Your task to perform on an android device: Check the weather Image 0: 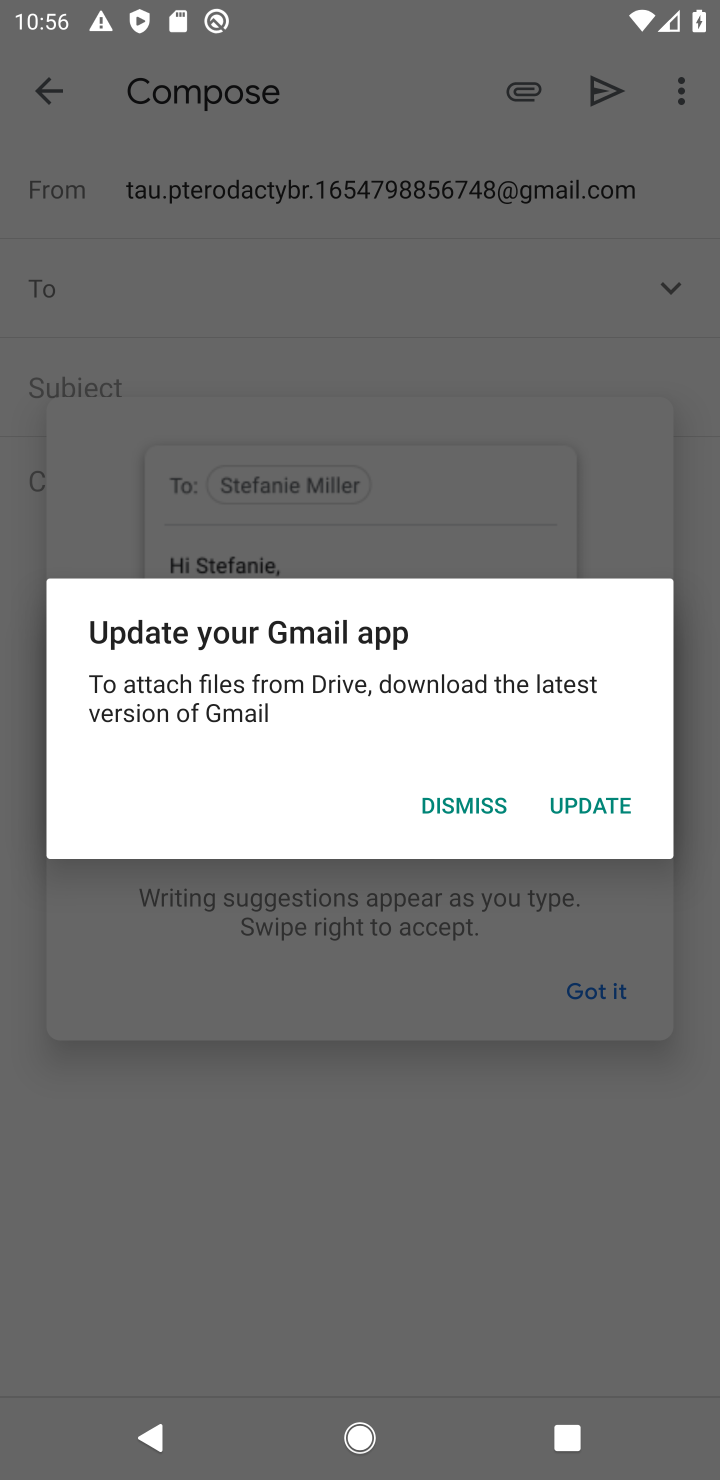
Step 0: press home button
Your task to perform on an android device: Check the weather Image 1: 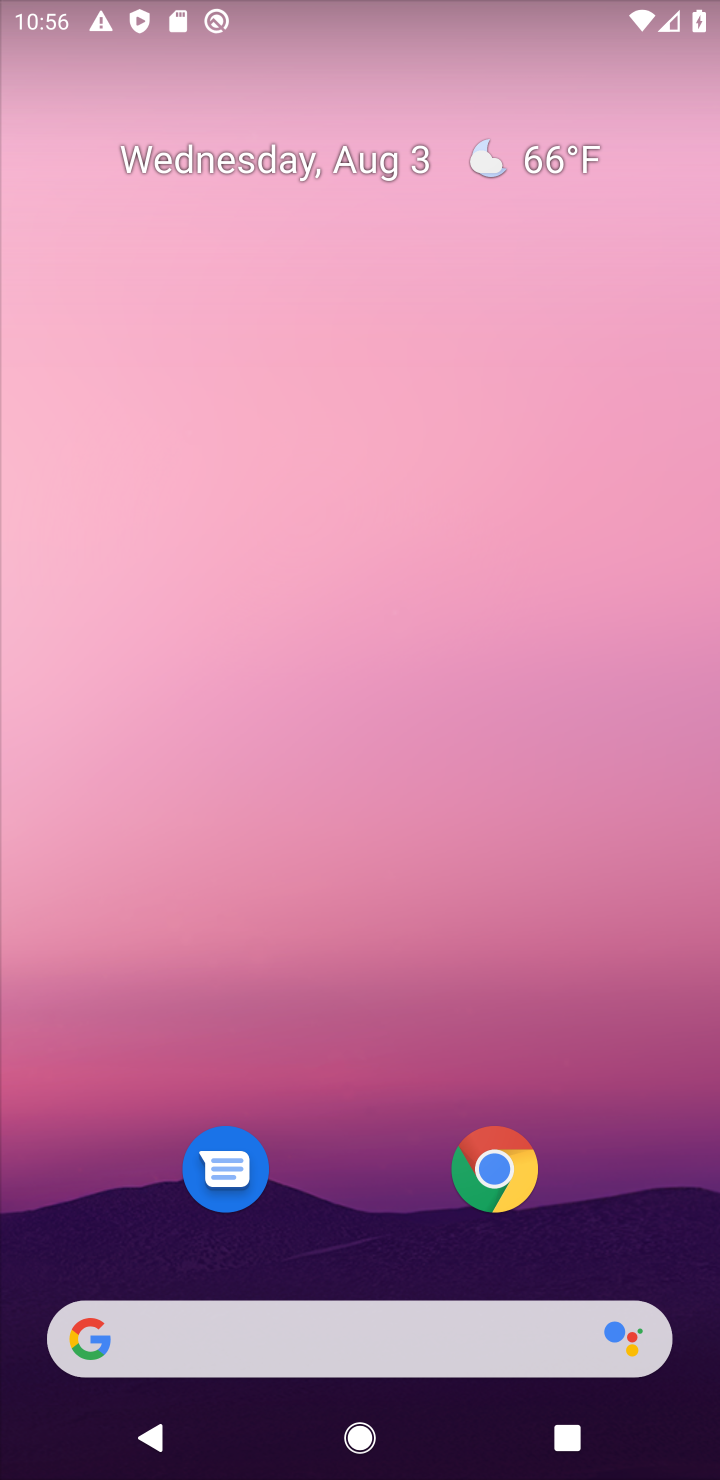
Step 1: drag from (382, 1192) to (345, 10)
Your task to perform on an android device: Check the weather Image 2: 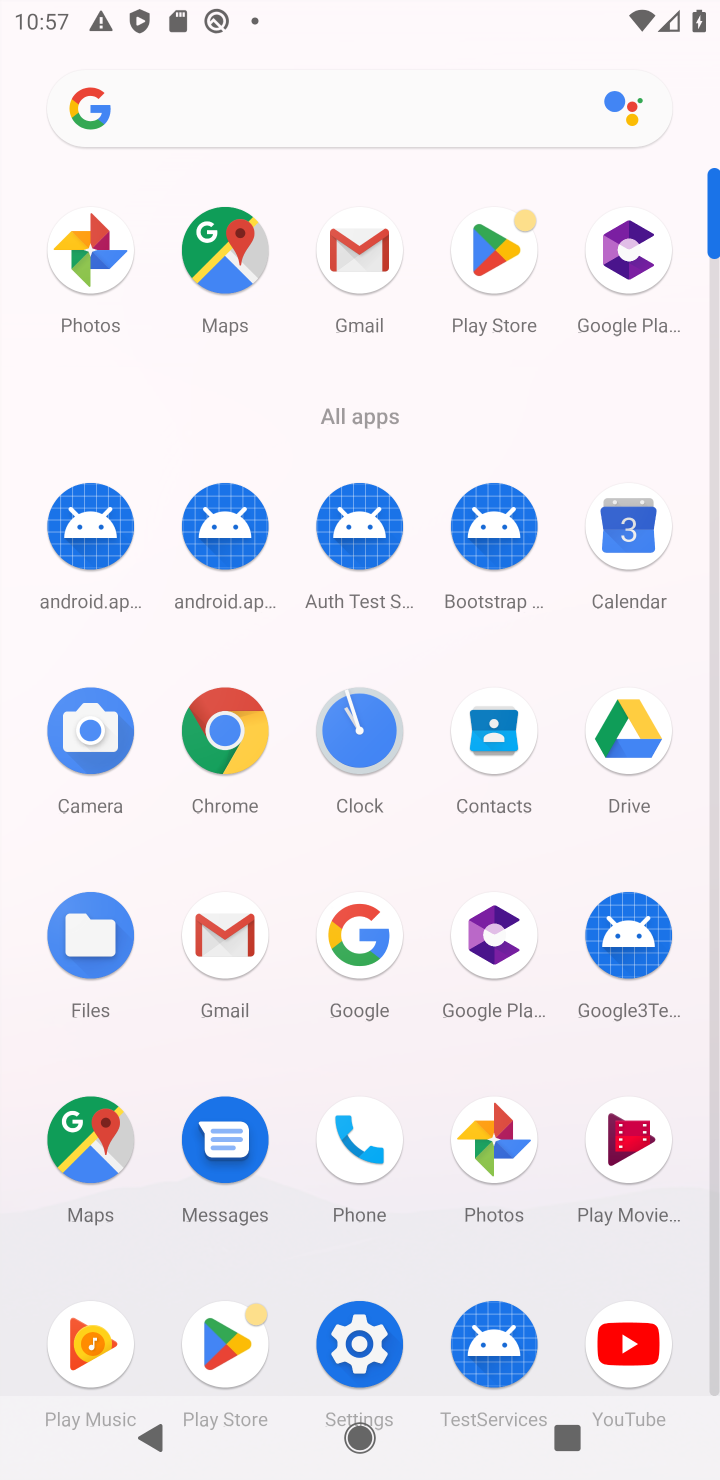
Step 2: click (186, 124)
Your task to perform on an android device: Check the weather Image 3: 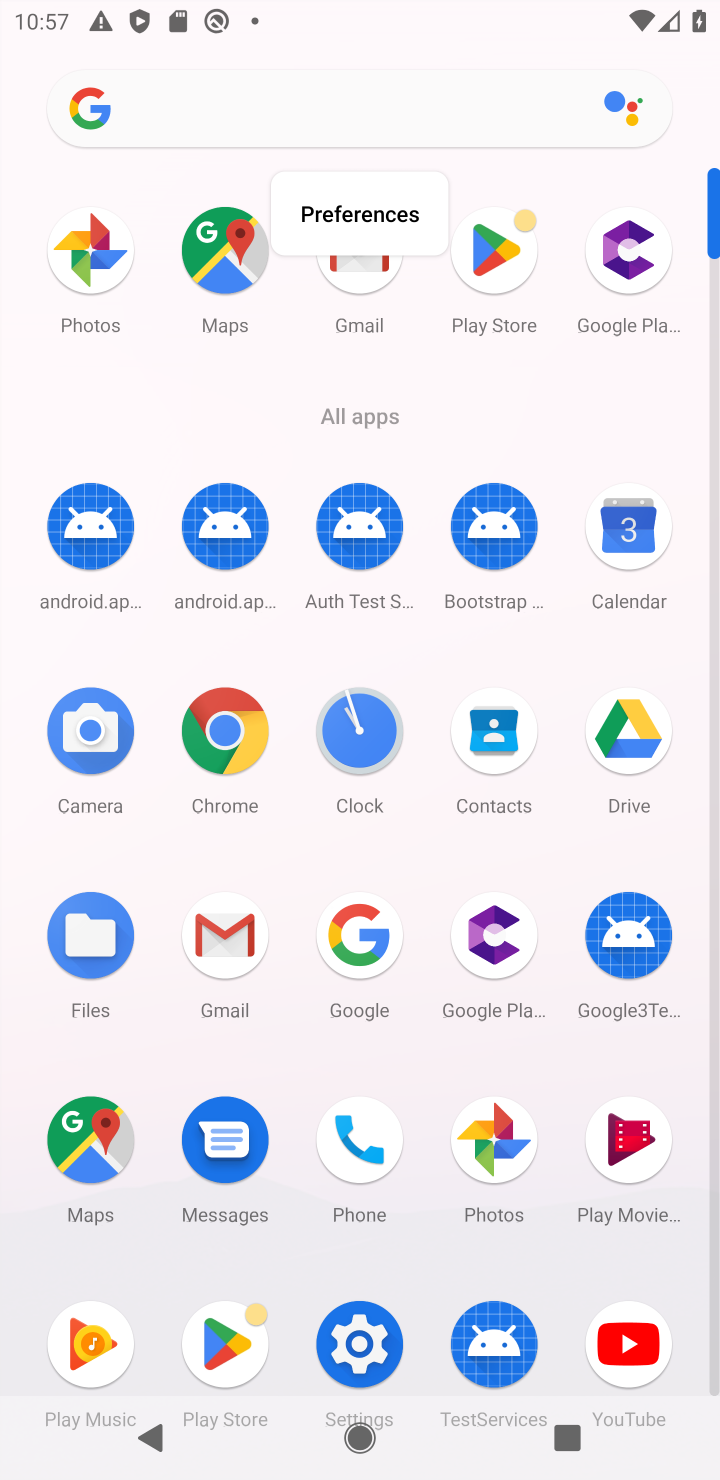
Step 3: click (207, 105)
Your task to perform on an android device: Check the weather Image 4: 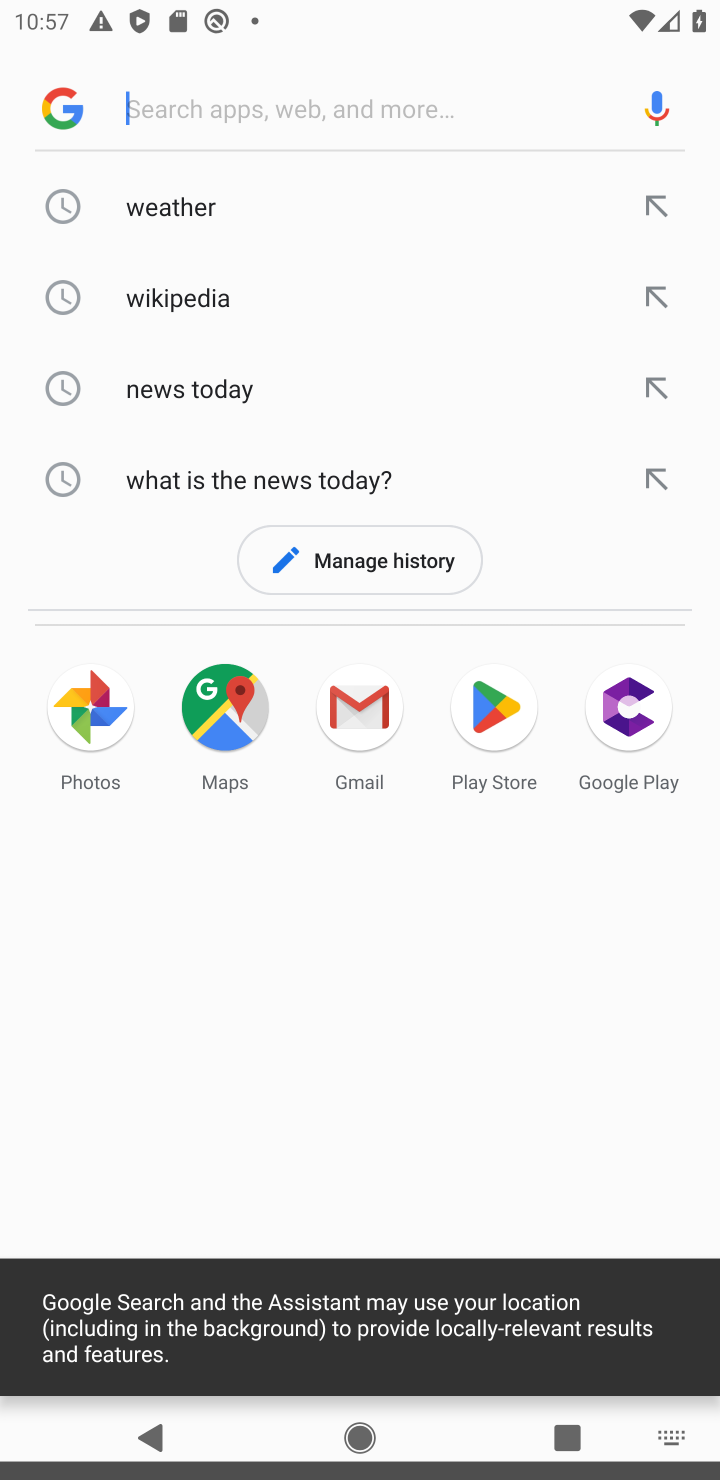
Step 4: click (165, 207)
Your task to perform on an android device: Check the weather Image 5: 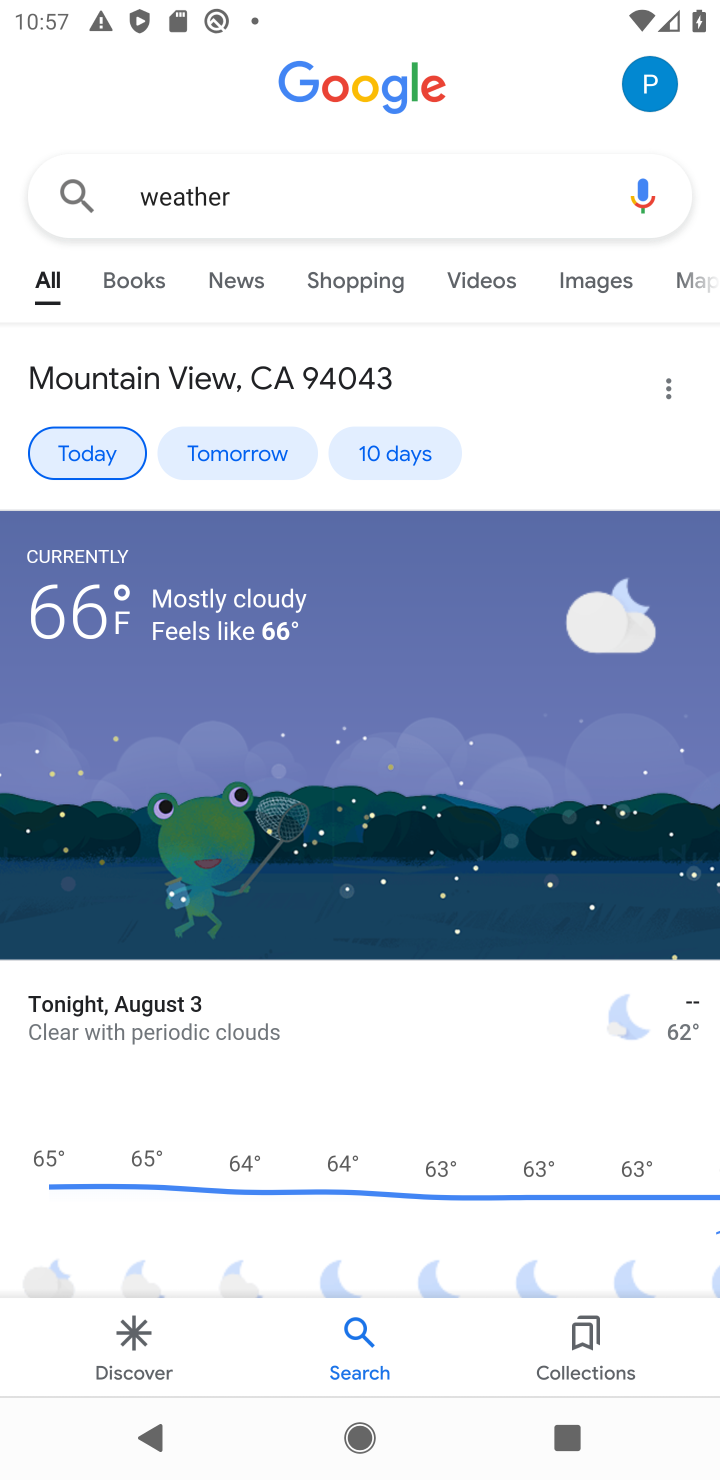
Step 5: task complete